Your task to perform on an android device: empty trash in google photos Image 0: 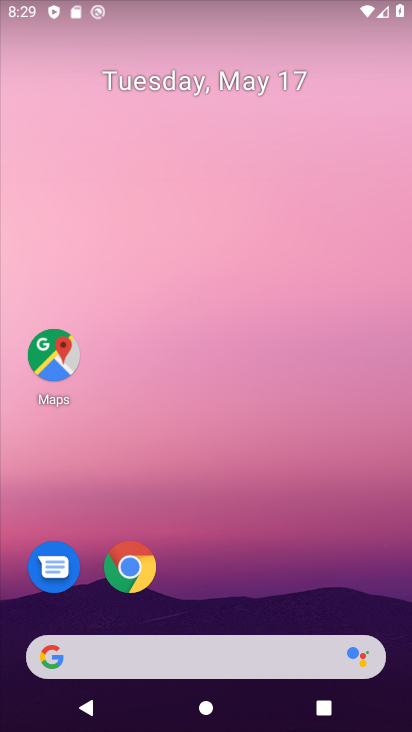
Step 0: drag from (209, 580) to (203, 233)
Your task to perform on an android device: empty trash in google photos Image 1: 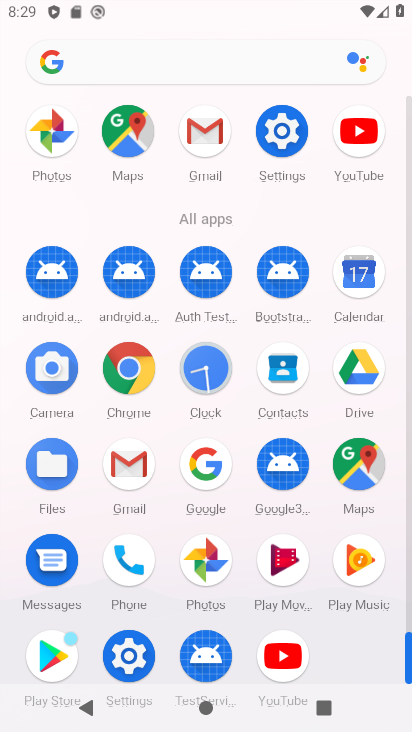
Step 1: click (203, 552)
Your task to perform on an android device: empty trash in google photos Image 2: 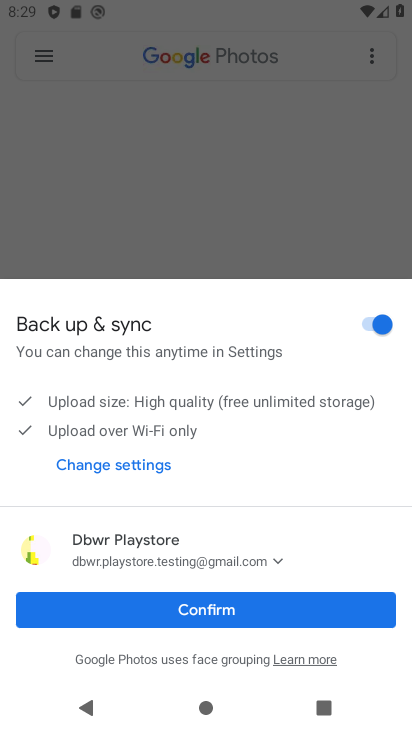
Step 2: click (230, 614)
Your task to perform on an android device: empty trash in google photos Image 3: 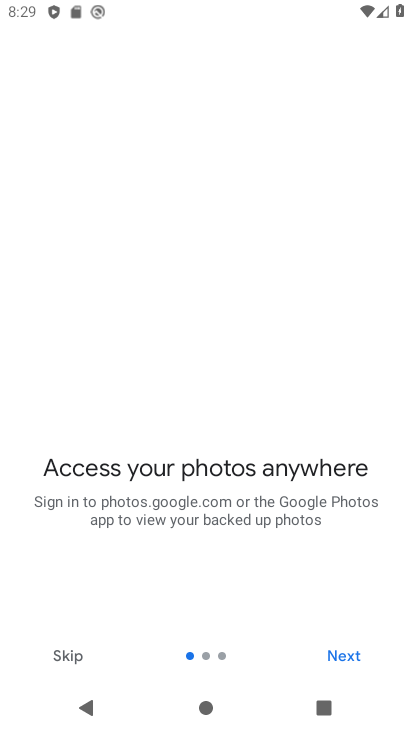
Step 3: click (363, 655)
Your task to perform on an android device: empty trash in google photos Image 4: 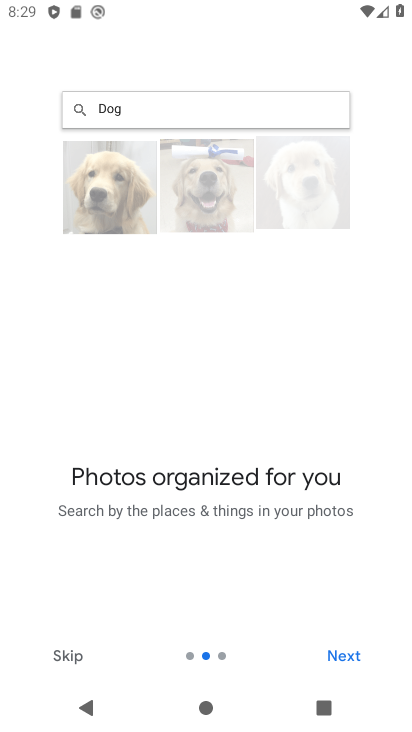
Step 4: click (348, 652)
Your task to perform on an android device: empty trash in google photos Image 5: 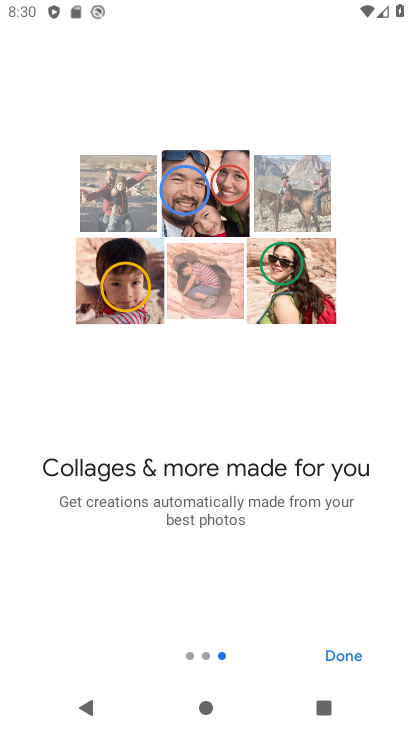
Step 5: click (348, 656)
Your task to perform on an android device: empty trash in google photos Image 6: 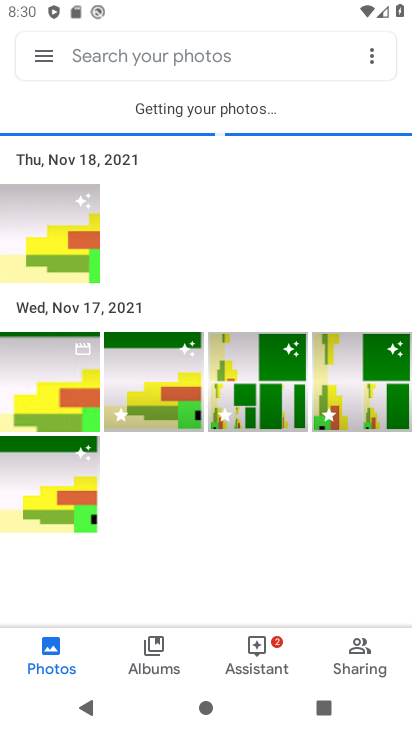
Step 6: click (42, 58)
Your task to perform on an android device: empty trash in google photos Image 7: 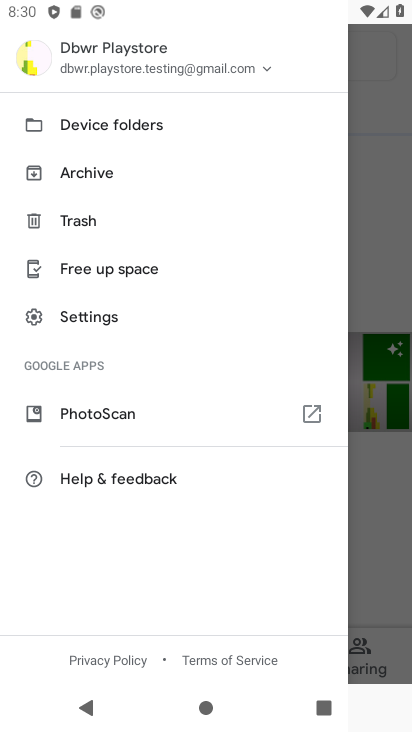
Step 7: click (79, 213)
Your task to perform on an android device: empty trash in google photos Image 8: 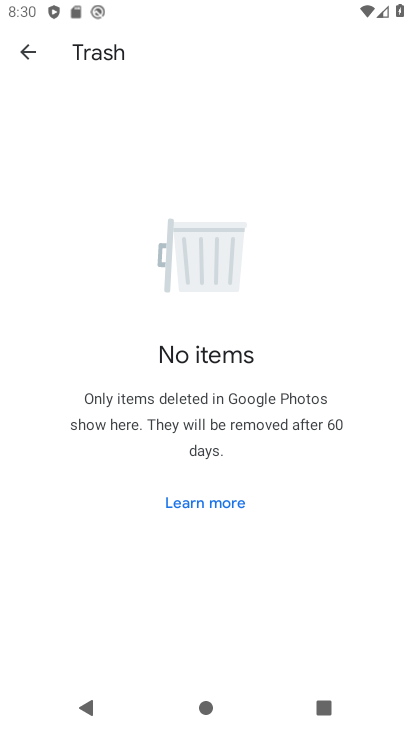
Step 8: task complete